Your task to perform on an android device: Do I have any events this weekend? Image 0: 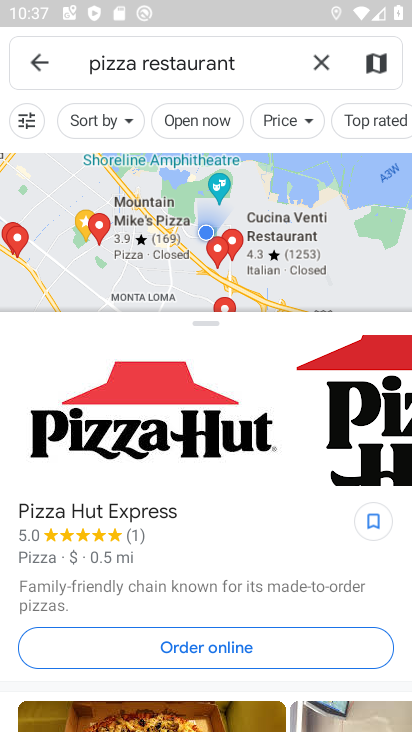
Step 0: press home button
Your task to perform on an android device: Do I have any events this weekend? Image 1: 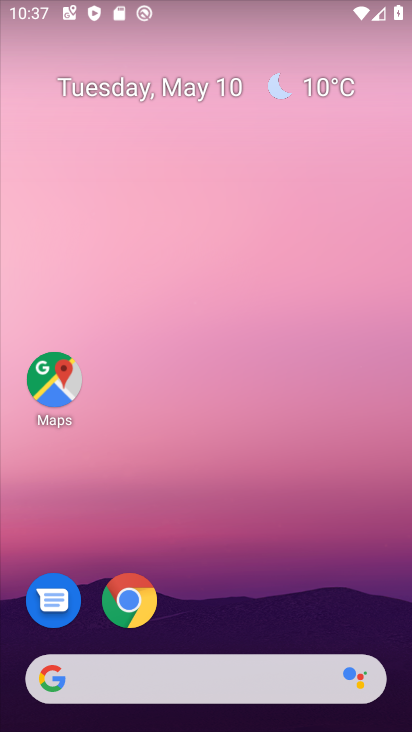
Step 1: drag from (248, 519) to (165, 6)
Your task to perform on an android device: Do I have any events this weekend? Image 2: 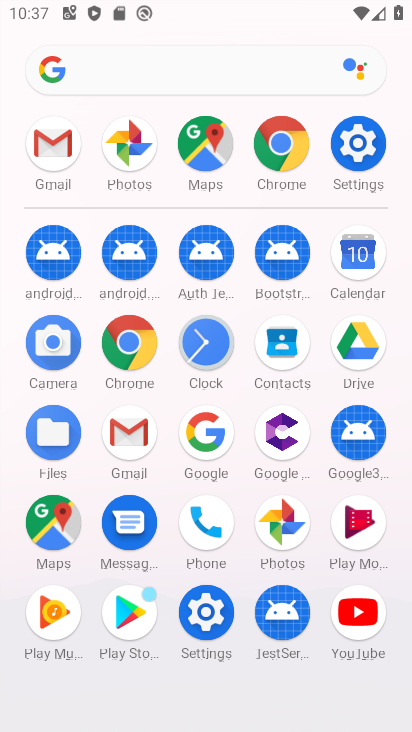
Step 2: click (358, 254)
Your task to perform on an android device: Do I have any events this weekend? Image 3: 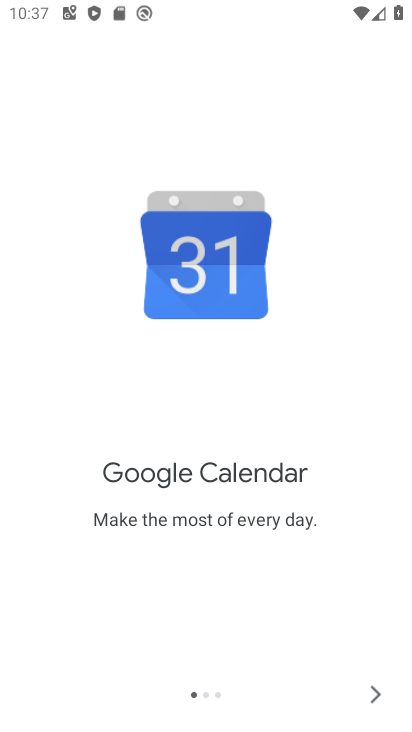
Step 3: click (371, 695)
Your task to perform on an android device: Do I have any events this weekend? Image 4: 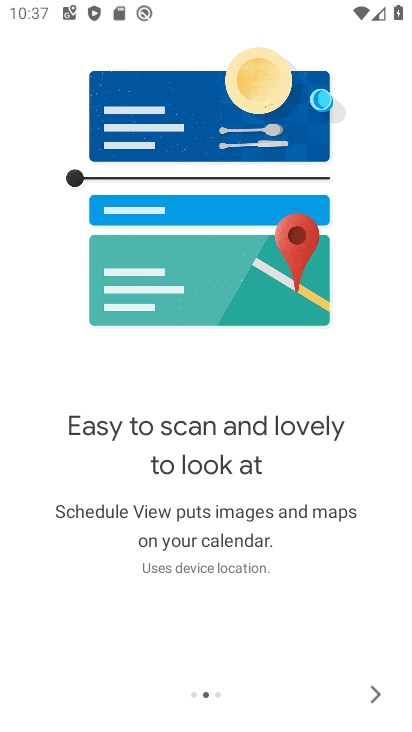
Step 4: click (208, 664)
Your task to perform on an android device: Do I have any events this weekend? Image 5: 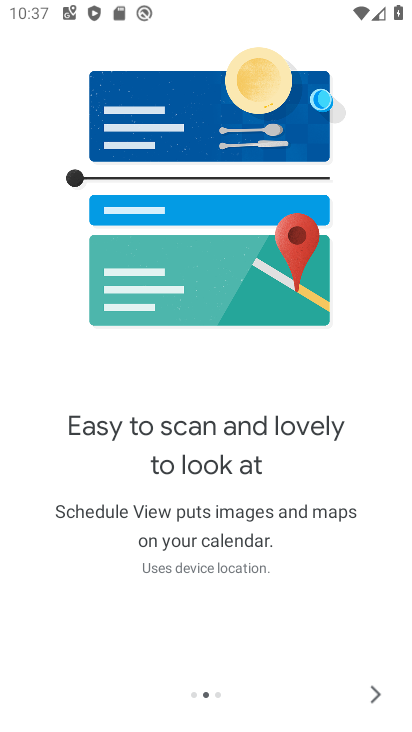
Step 5: click (377, 699)
Your task to perform on an android device: Do I have any events this weekend? Image 6: 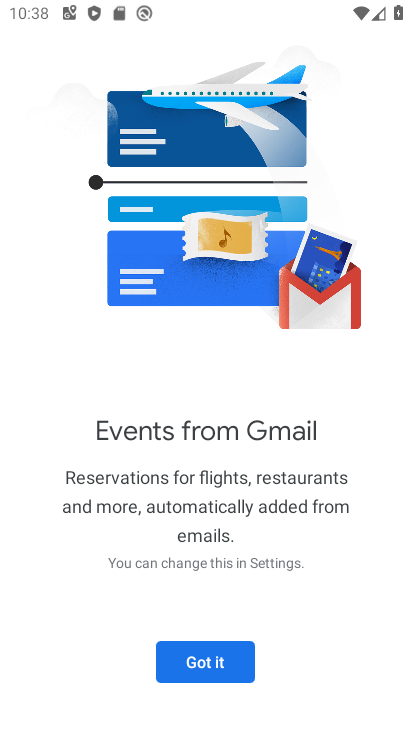
Step 6: click (204, 676)
Your task to perform on an android device: Do I have any events this weekend? Image 7: 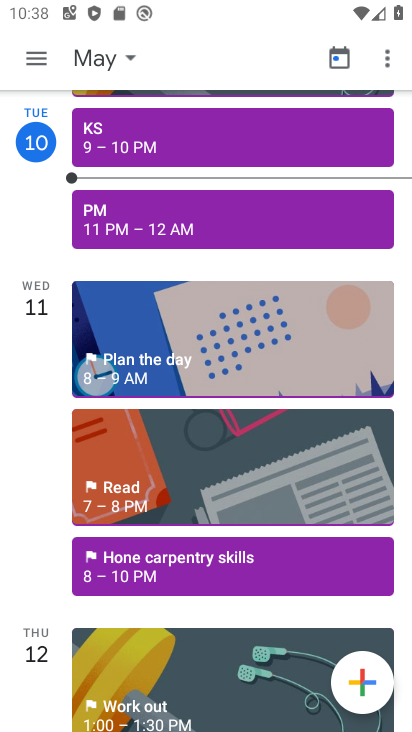
Step 7: click (33, 63)
Your task to perform on an android device: Do I have any events this weekend? Image 8: 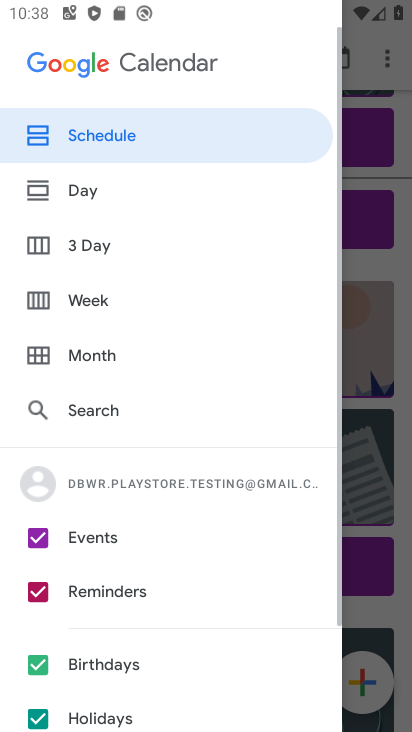
Step 8: click (86, 300)
Your task to perform on an android device: Do I have any events this weekend? Image 9: 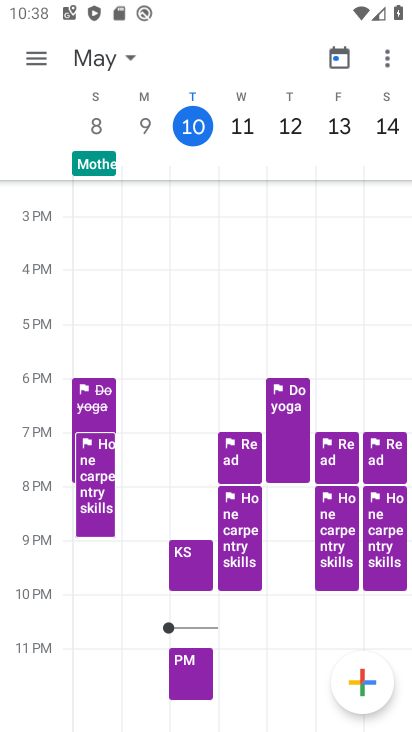
Step 9: task complete